Your task to perform on an android device: change the clock display to show seconds Image 0: 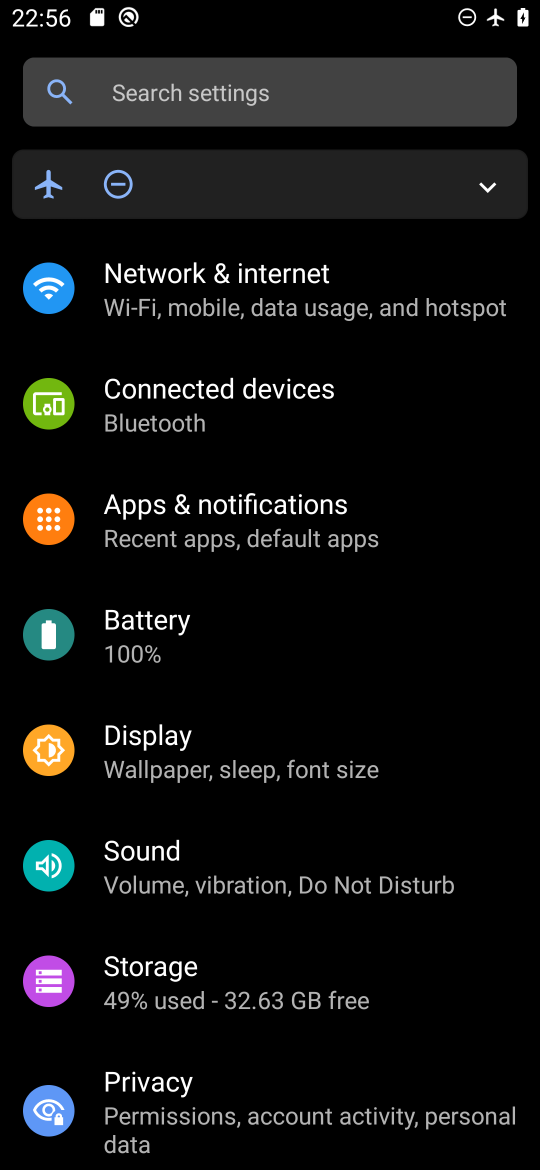
Step 0: press home button
Your task to perform on an android device: change the clock display to show seconds Image 1: 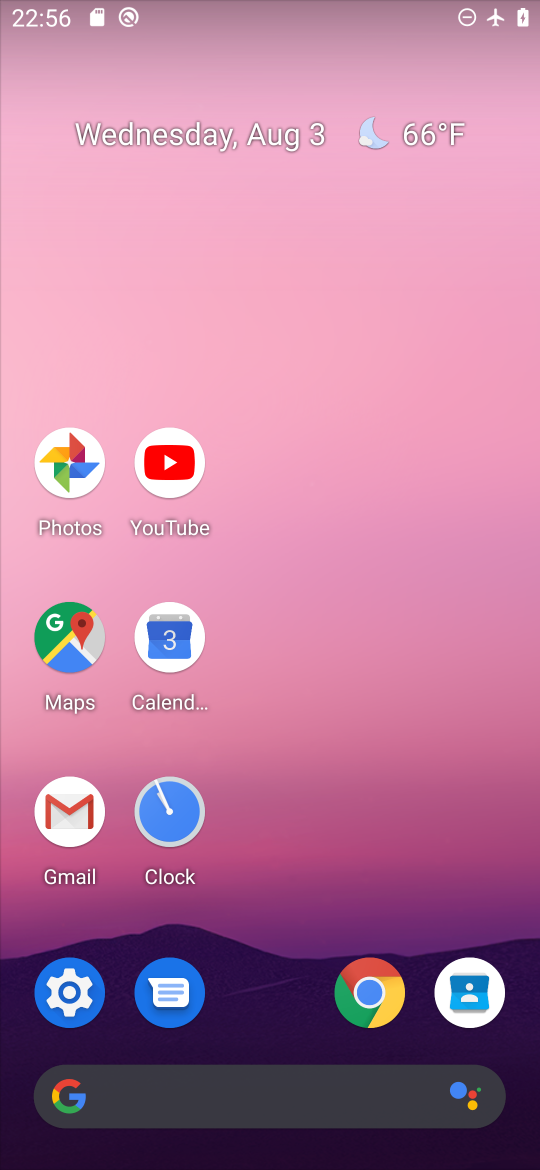
Step 1: click (171, 811)
Your task to perform on an android device: change the clock display to show seconds Image 2: 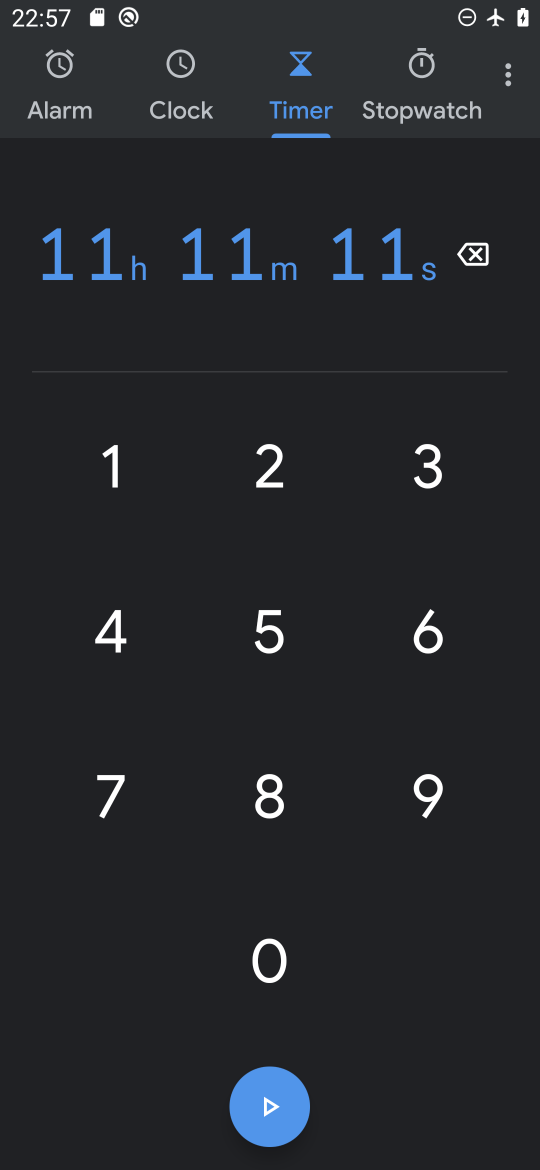
Step 2: click (517, 70)
Your task to perform on an android device: change the clock display to show seconds Image 3: 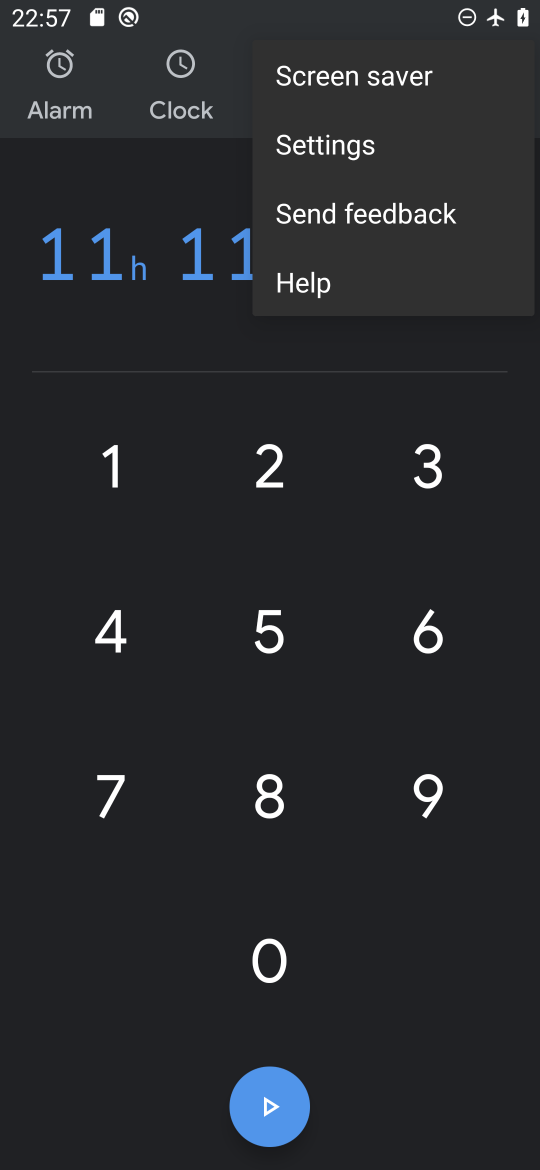
Step 3: click (342, 157)
Your task to perform on an android device: change the clock display to show seconds Image 4: 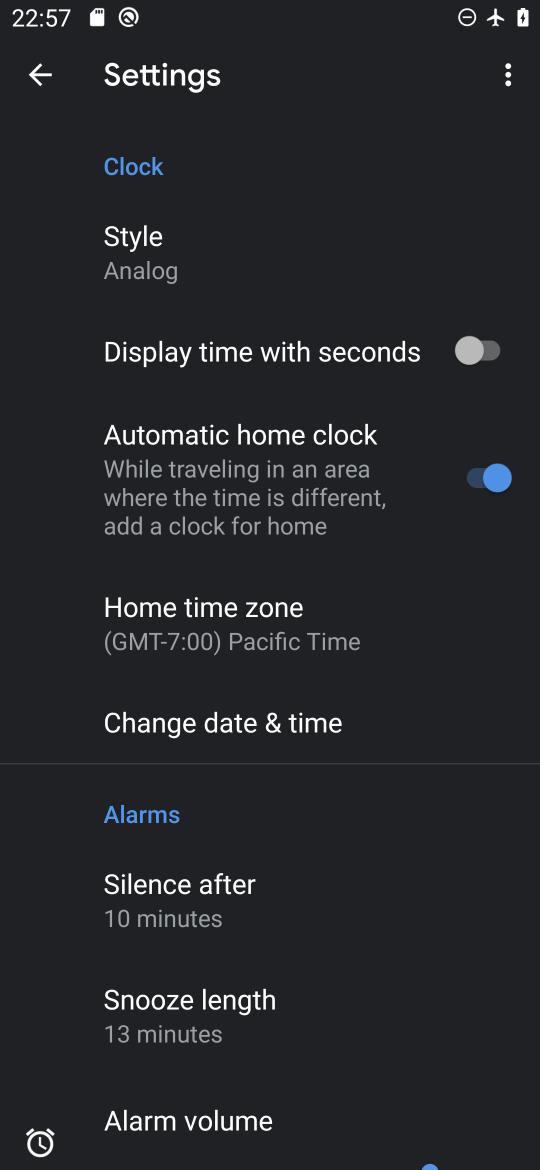
Step 4: click (463, 357)
Your task to perform on an android device: change the clock display to show seconds Image 5: 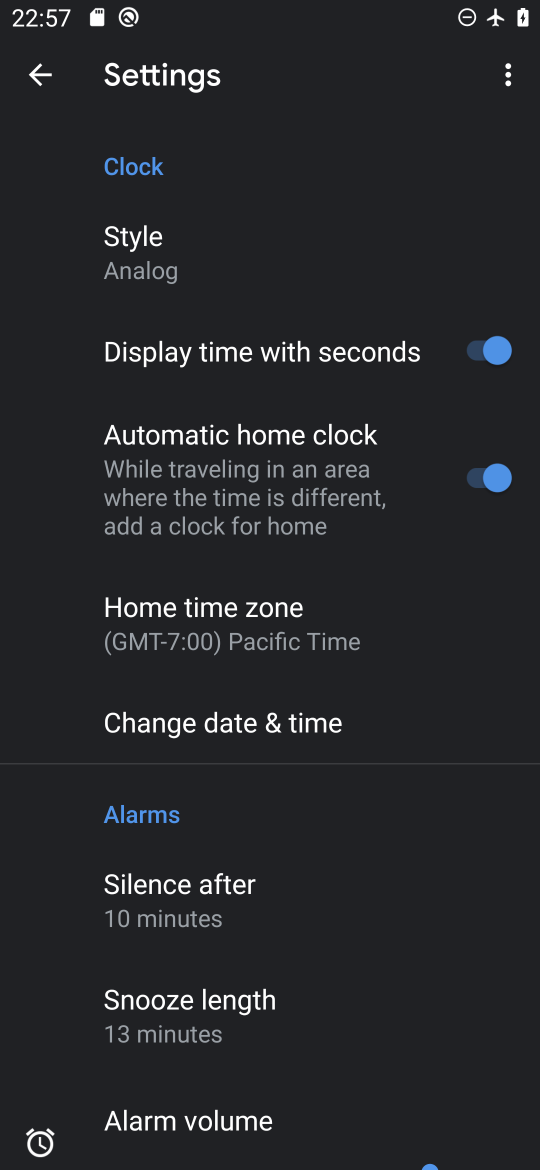
Step 5: task complete